Your task to perform on an android device: turn off picture-in-picture Image 0: 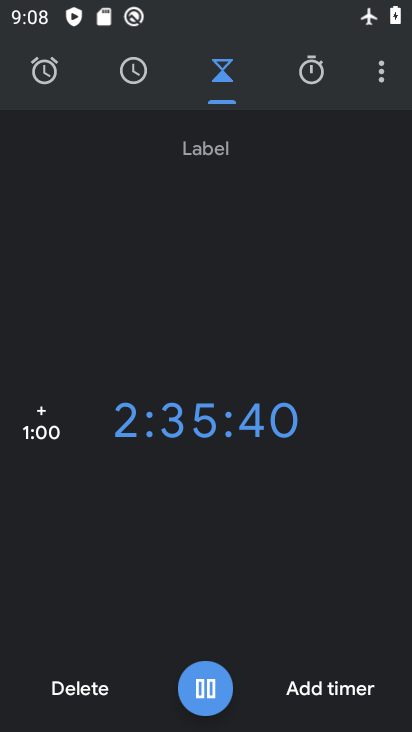
Step 0: press home button
Your task to perform on an android device: turn off picture-in-picture Image 1: 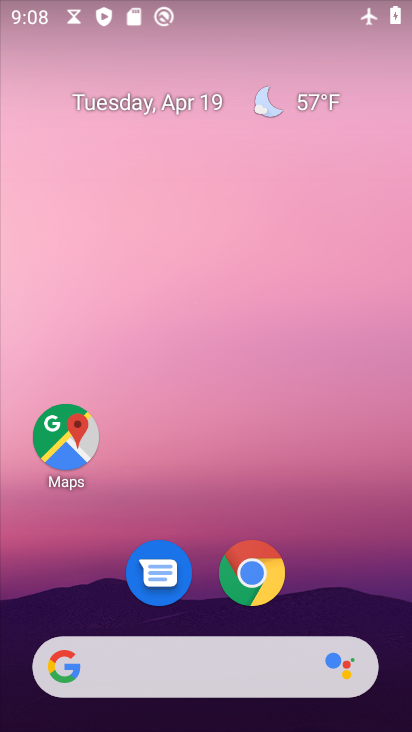
Step 1: drag from (303, 608) to (328, 64)
Your task to perform on an android device: turn off picture-in-picture Image 2: 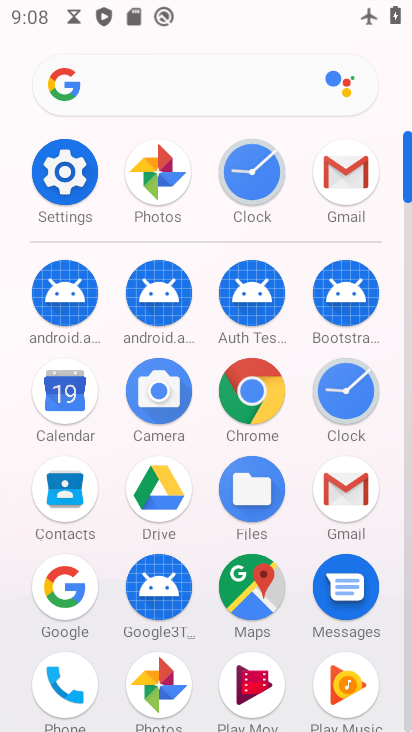
Step 2: click (65, 170)
Your task to perform on an android device: turn off picture-in-picture Image 3: 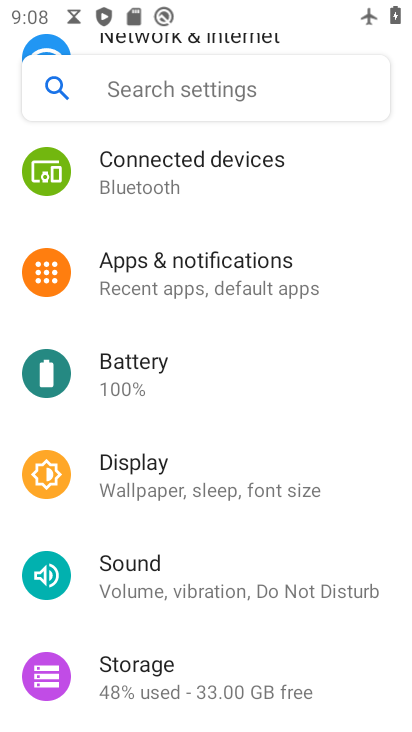
Step 3: click (232, 267)
Your task to perform on an android device: turn off picture-in-picture Image 4: 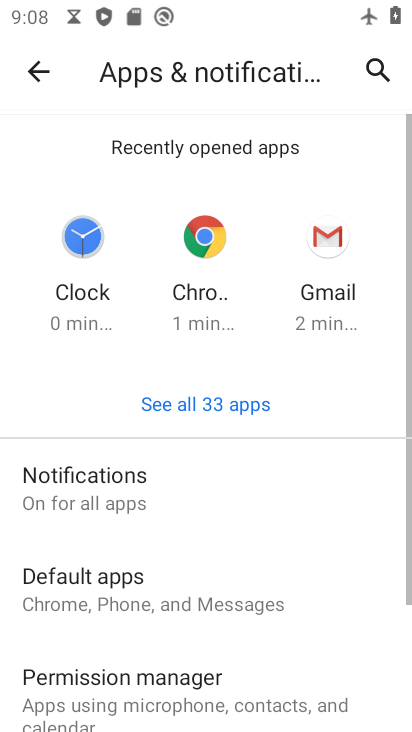
Step 4: drag from (291, 539) to (304, 134)
Your task to perform on an android device: turn off picture-in-picture Image 5: 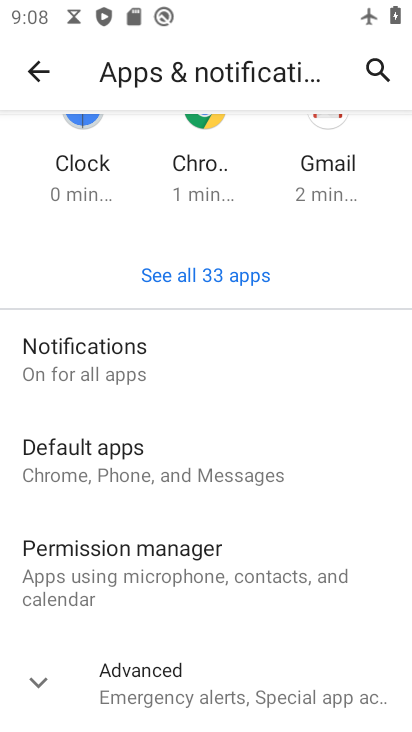
Step 5: click (209, 678)
Your task to perform on an android device: turn off picture-in-picture Image 6: 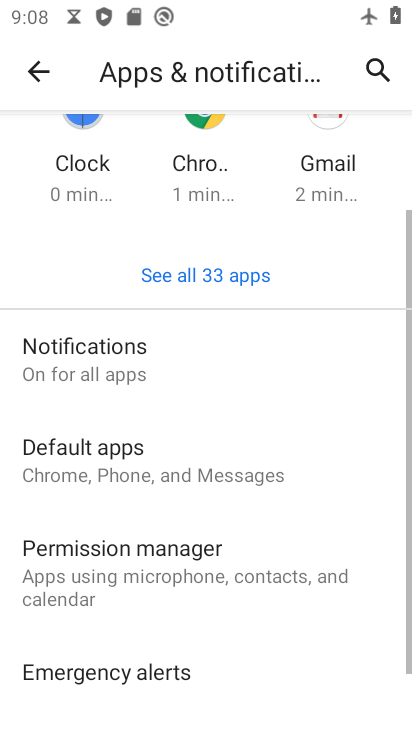
Step 6: drag from (206, 605) to (204, 169)
Your task to perform on an android device: turn off picture-in-picture Image 7: 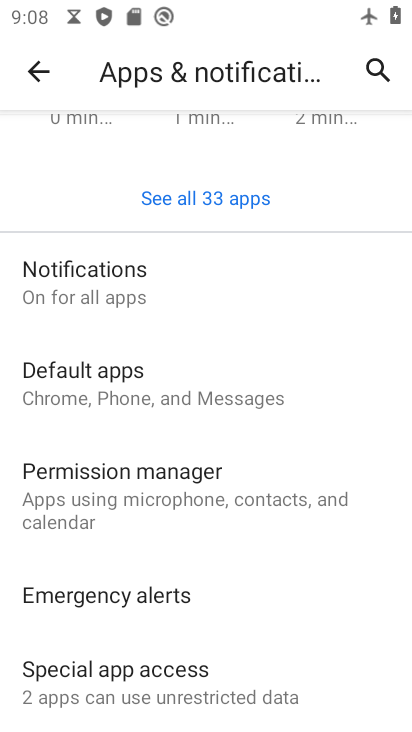
Step 7: click (190, 676)
Your task to perform on an android device: turn off picture-in-picture Image 8: 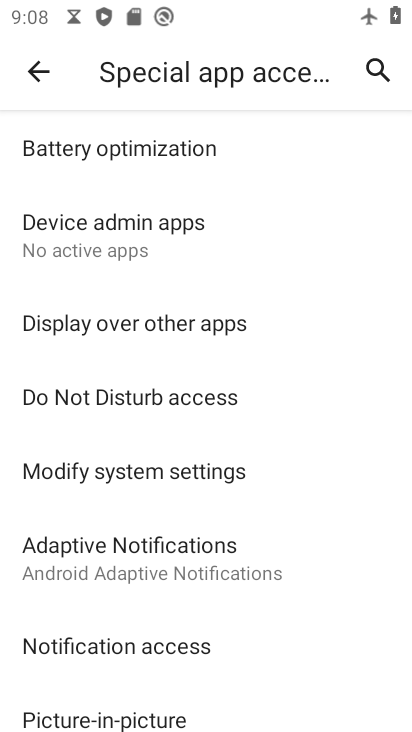
Step 8: drag from (227, 681) to (220, 309)
Your task to perform on an android device: turn off picture-in-picture Image 9: 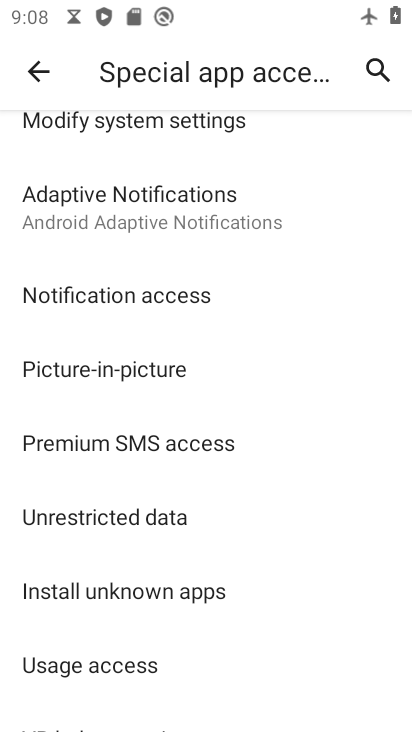
Step 9: click (121, 369)
Your task to perform on an android device: turn off picture-in-picture Image 10: 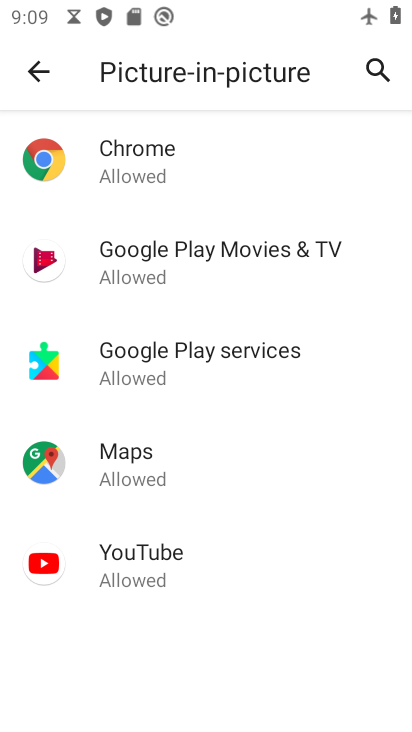
Step 10: click (165, 149)
Your task to perform on an android device: turn off picture-in-picture Image 11: 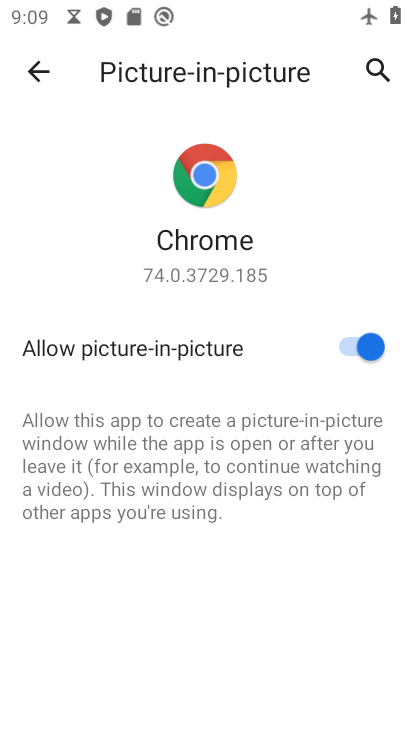
Step 11: click (342, 341)
Your task to perform on an android device: turn off picture-in-picture Image 12: 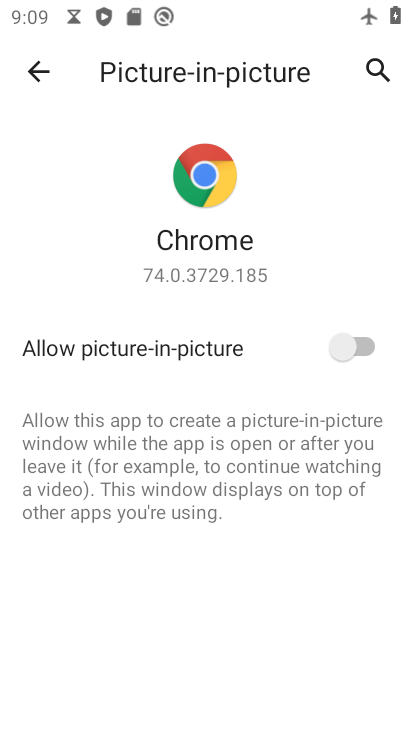
Step 12: click (39, 73)
Your task to perform on an android device: turn off picture-in-picture Image 13: 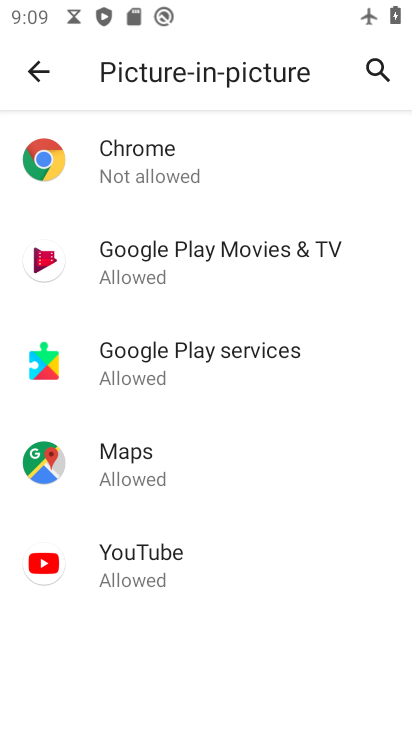
Step 13: click (163, 272)
Your task to perform on an android device: turn off picture-in-picture Image 14: 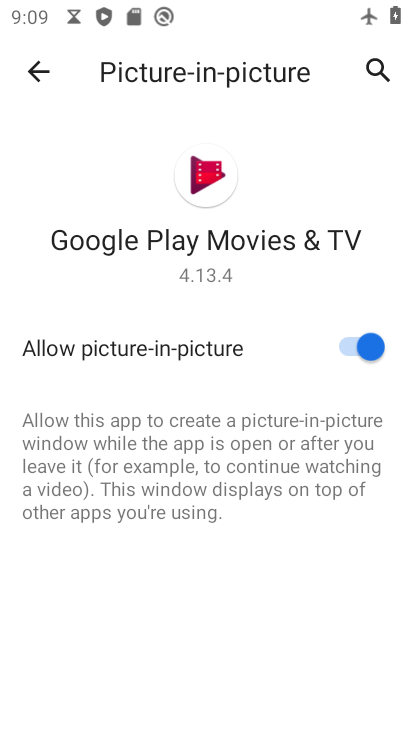
Step 14: click (343, 341)
Your task to perform on an android device: turn off picture-in-picture Image 15: 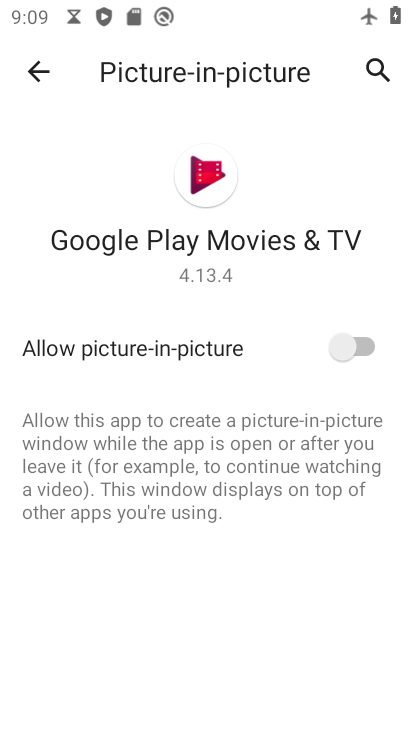
Step 15: click (29, 66)
Your task to perform on an android device: turn off picture-in-picture Image 16: 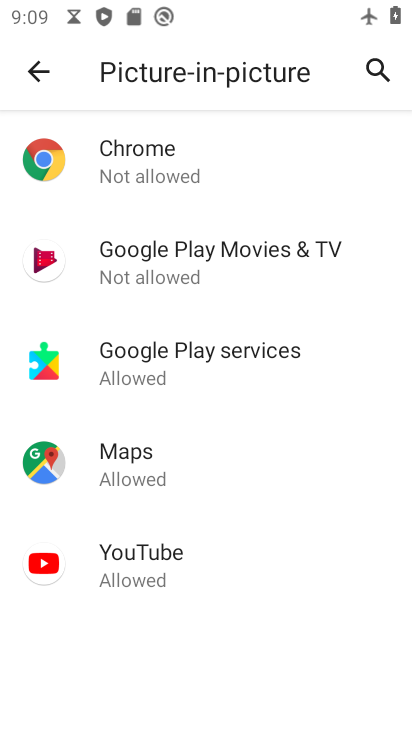
Step 16: click (205, 344)
Your task to perform on an android device: turn off picture-in-picture Image 17: 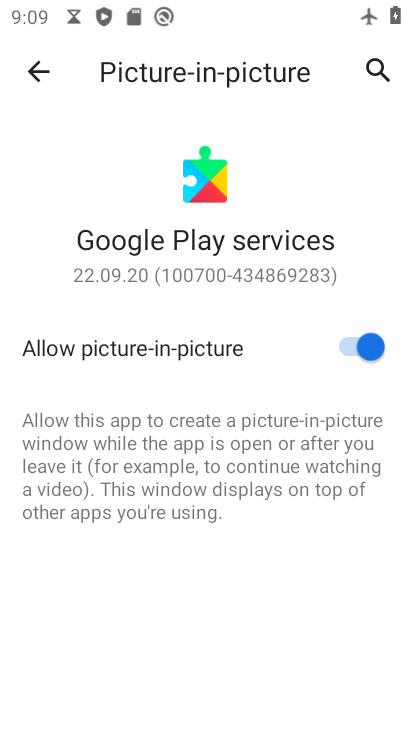
Step 17: click (346, 342)
Your task to perform on an android device: turn off picture-in-picture Image 18: 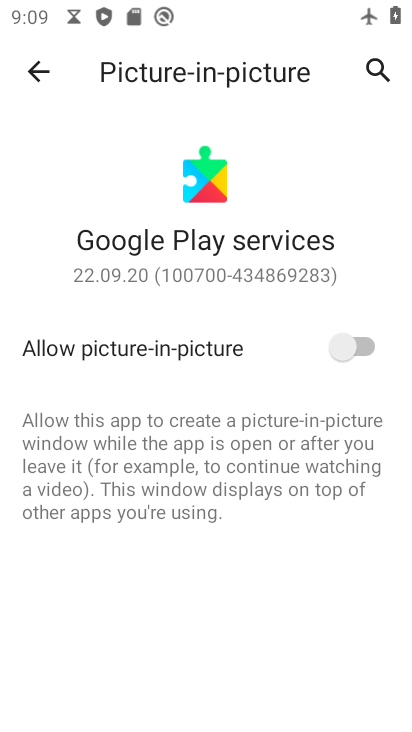
Step 18: click (47, 67)
Your task to perform on an android device: turn off picture-in-picture Image 19: 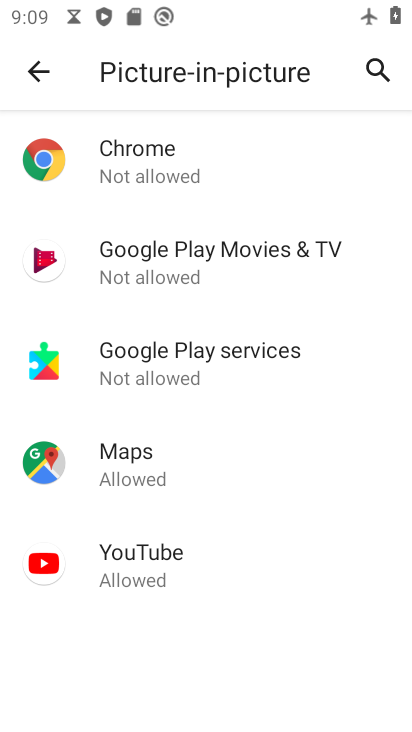
Step 19: click (149, 478)
Your task to perform on an android device: turn off picture-in-picture Image 20: 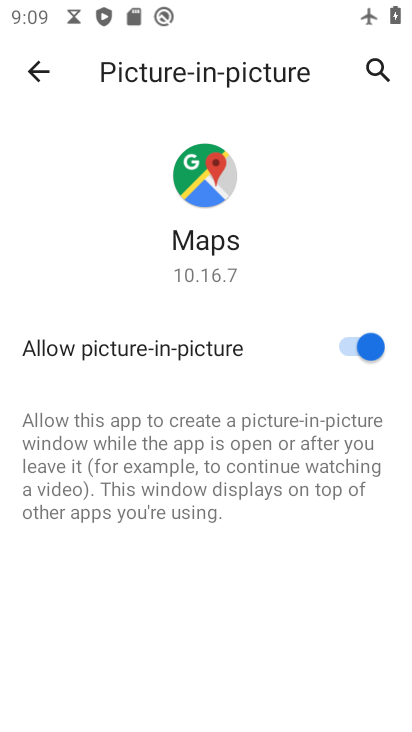
Step 20: click (354, 335)
Your task to perform on an android device: turn off picture-in-picture Image 21: 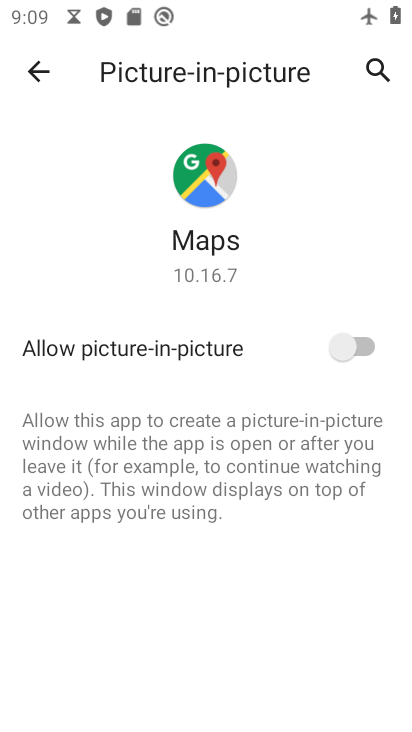
Step 21: click (23, 68)
Your task to perform on an android device: turn off picture-in-picture Image 22: 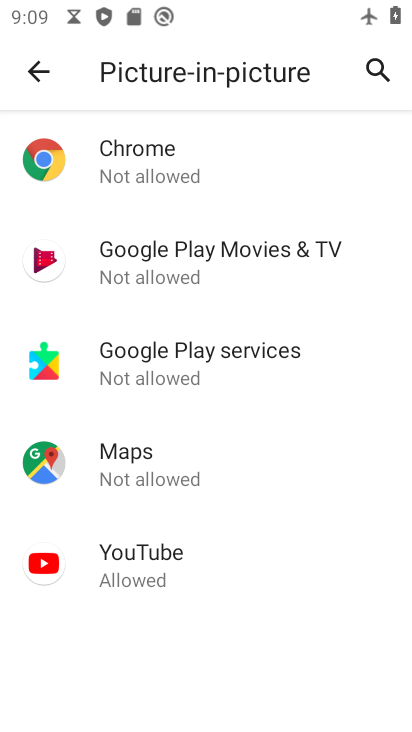
Step 22: click (164, 551)
Your task to perform on an android device: turn off picture-in-picture Image 23: 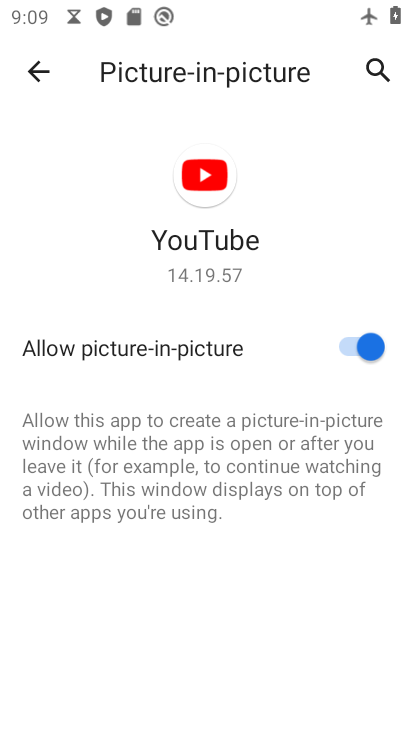
Step 23: click (346, 343)
Your task to perform on an android device: turn off picture-in-picture Image 24: 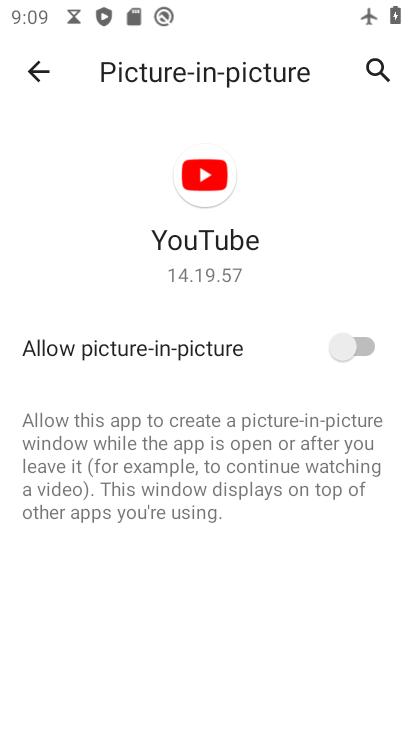
Step 24: task complete